Your task to perform on an android device: turn off picture-in-picture Image 0: 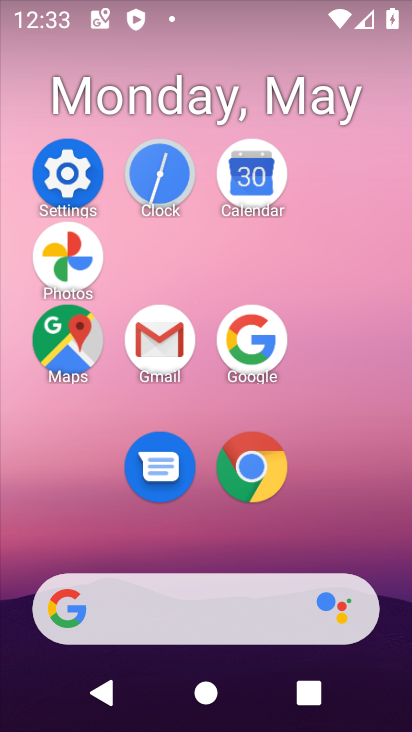
Step 0: click (268, 462)
Your task to perform on an android device: turn off picture-in-picture Image 1: 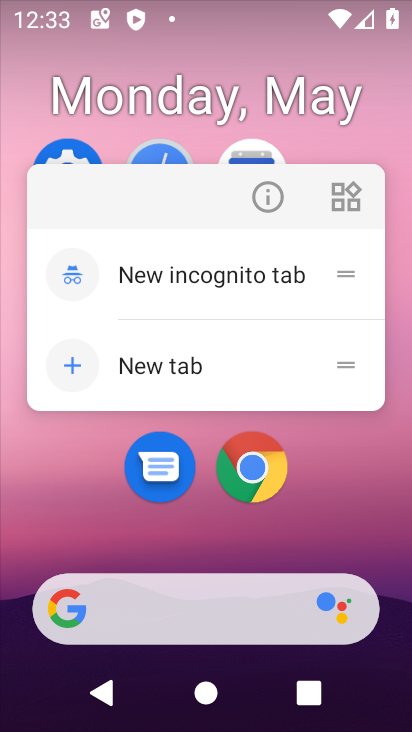
Step 1: click (258, 224)
Your task to perform on an android device: turn off picture-in-picture Image 2: 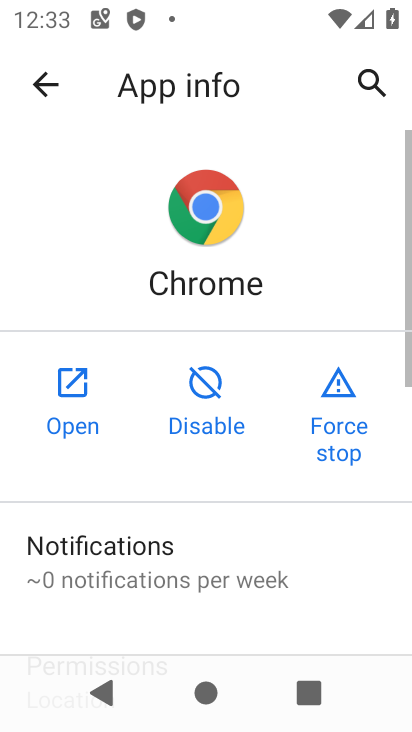
Step 2: drag from (243, 584) to (211, 154)
Your task to perform on an android device: turn off picture-in-picture Image 3: 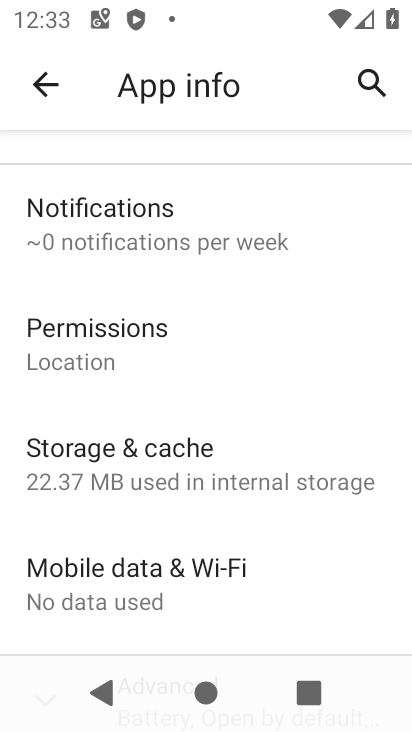
Step 3: drag from (237, 568) to (237, 162)
Your task to perform on an android device: turn off picture-in-picture Image 4: 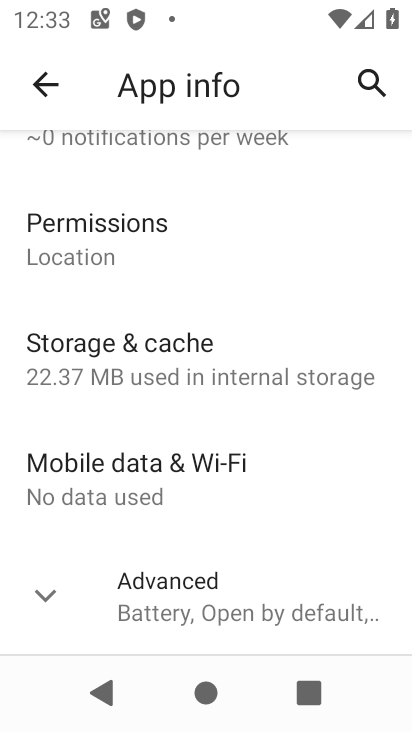
Step 4: click (202, 578)
Your task to perform on an android device: turn off picture-in-picture Image 5: 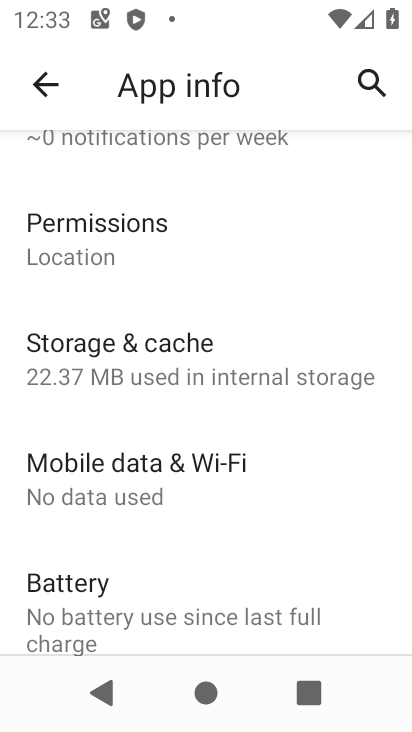
Step 5: drag from (203, 578) to (216, 184)
Your task to perform on an android device: turn off picture-in-picture Image 6: 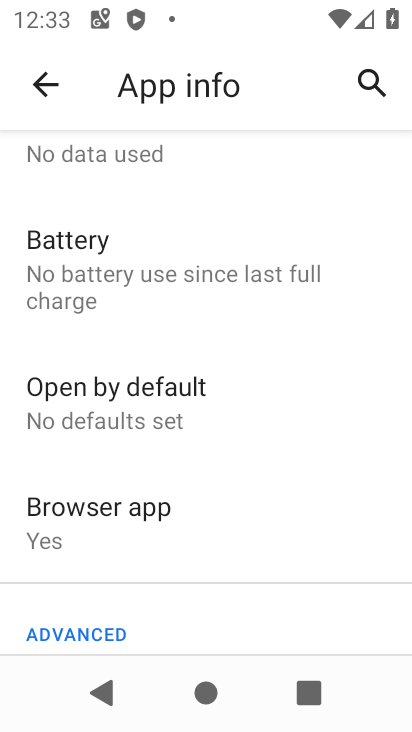
Step 6: drag from (244, 591) to (277, 220)
Your task to perform on an android device: turn off picture-in-picture Image 7: 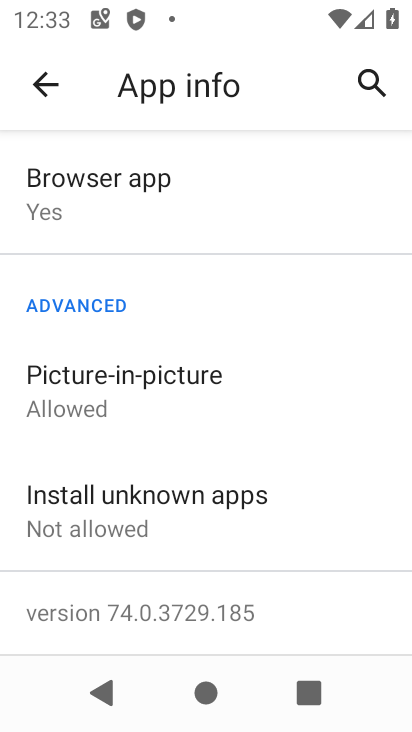
Step 7: click (251, 403)
Your task to perform on an android device: turn off picture-in-picture Image 8: 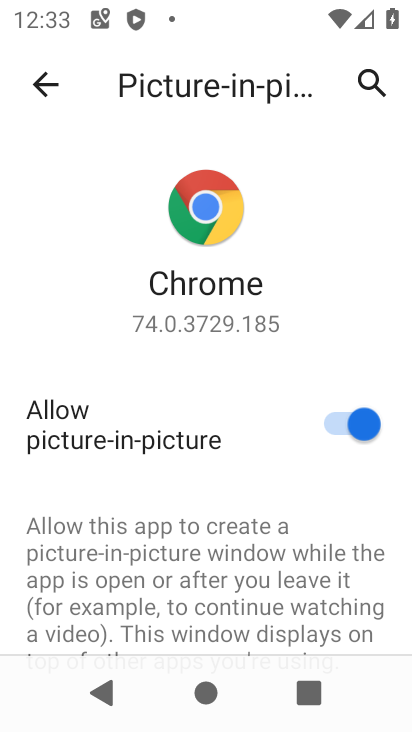
Step 8: click (329, 423)
Your task to perform on an android device: turn off picture-in-picture Image 9: 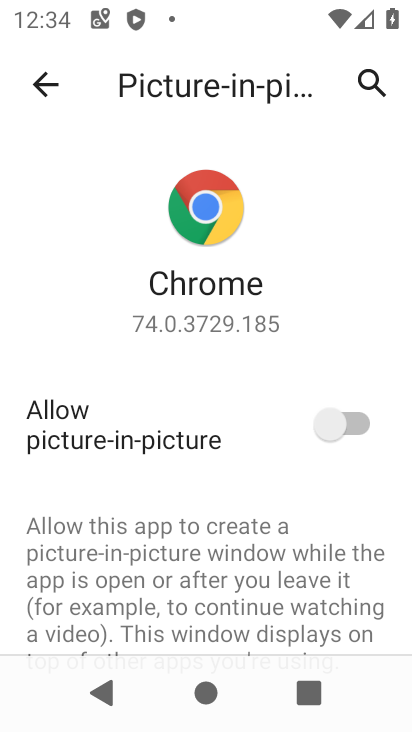
Step 9: task complete